Your task to perform on an android device: Go to wifi settings Image 0: 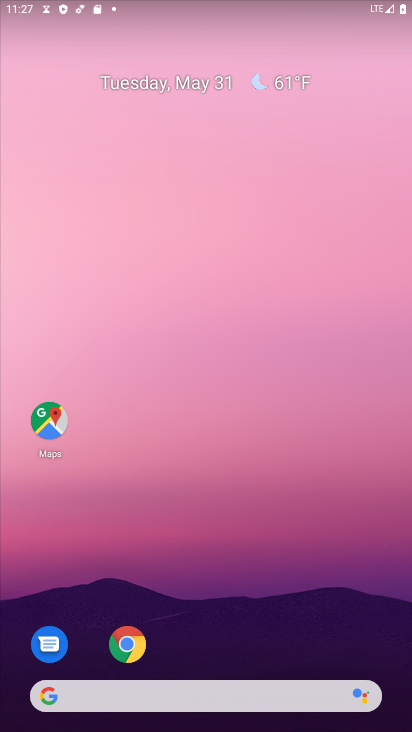
Step 0: drag from (87, 10) to (134, 591)
Your task to perform on an android device: Go to wifi settings Image 1: 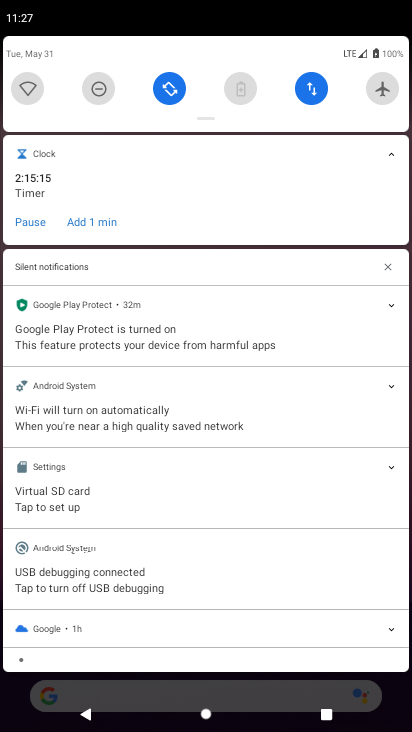
Step 1: click (28, 90)
Your task to perform on an android device: Go to wifi settings Image 2: 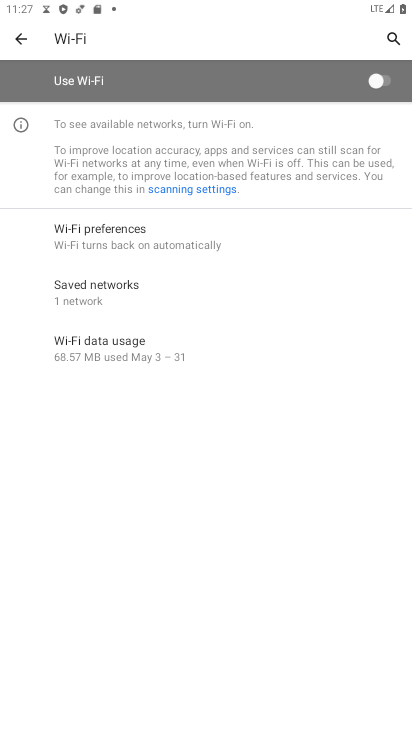
Step 2: task complete